Your task to perform on an android device: Open display settings Image 0: 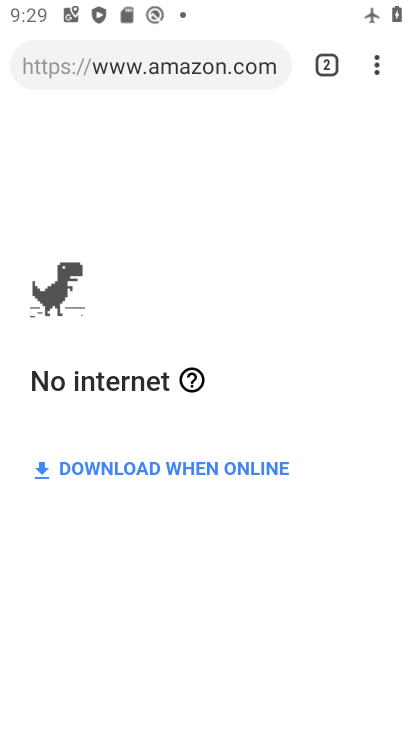
Step 0: press home button
Your task to perform on an android device: Open display settings Image 1: 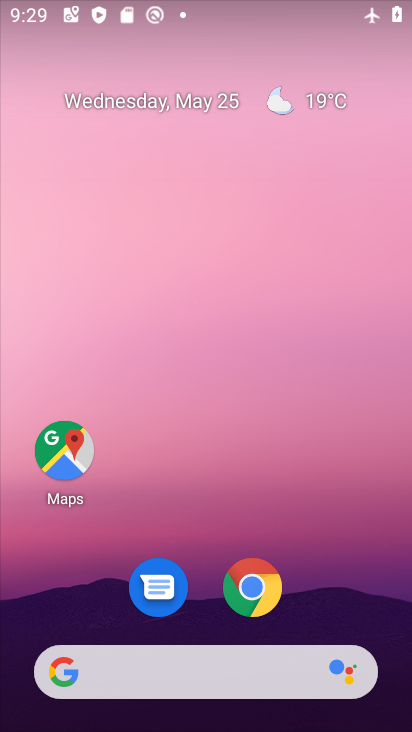
Step 1: drag from (388, 616) to (285, 14)
Your task to perform on an android device: Open display settings Image 2: 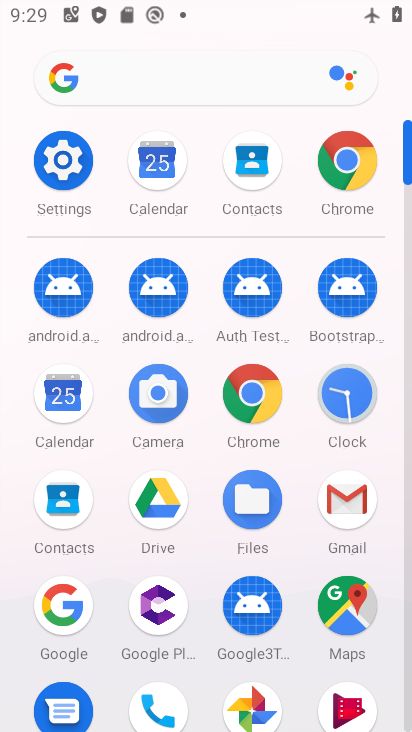
Step 2: click (406, 693)
Your task to perform on an android device: Open display settings Image 3: 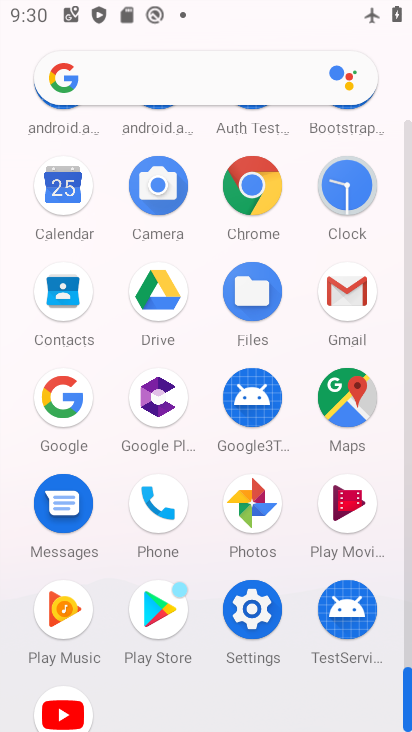
Step 3: click (254, 611)
Your task to perform on an android device: Open display settings Image 4: 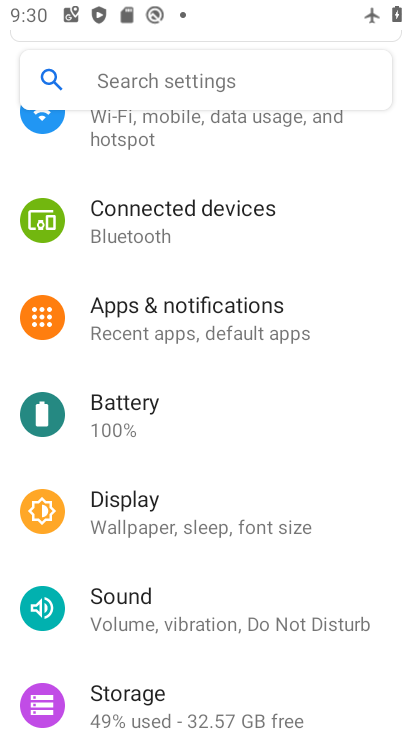
Step 4: click (118, 511)
Your task to perform on an android device: Open display settings Image 5: 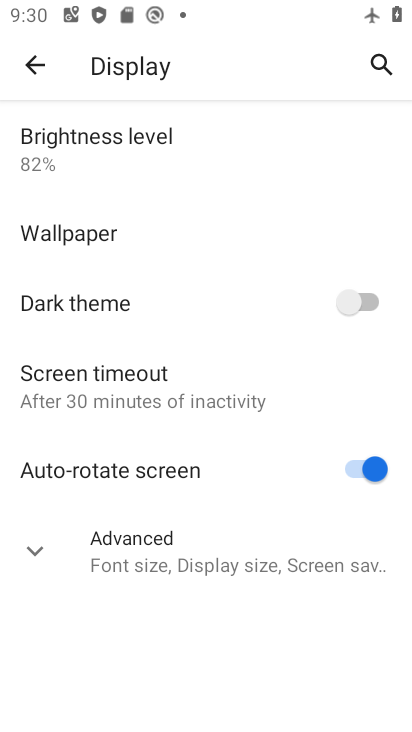
Step 5: click (28, 554)
Your task to perform on an android device: Open display settings Image 6: 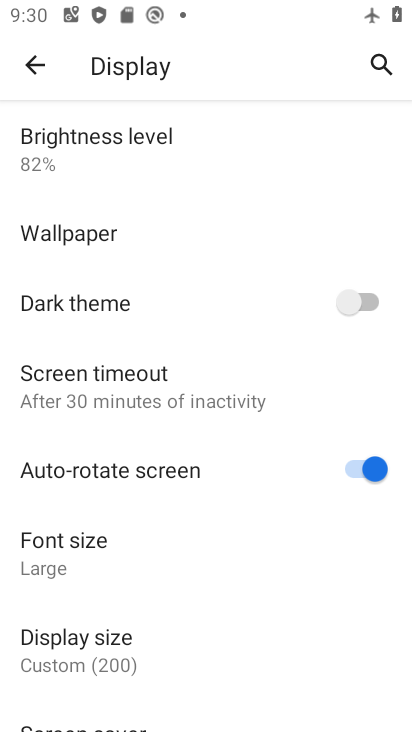
Step 6: task complete